Your task to perform on an android device: Go to Android settings Image 0: 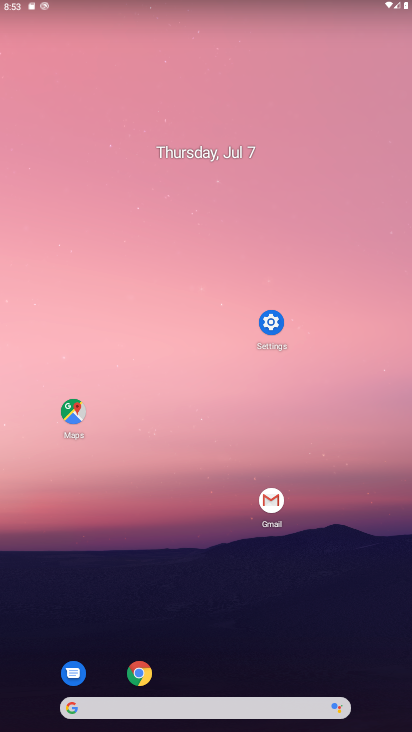
Step 0: click (258, 321)
Your task to perform on an android device: Go to Android settings Image 1: 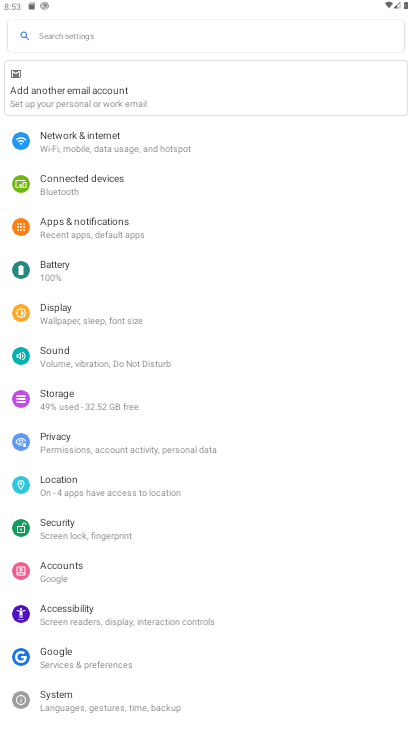
Step 1: task complete